Your task to perform on an android device: Go to Google maps Image 0: 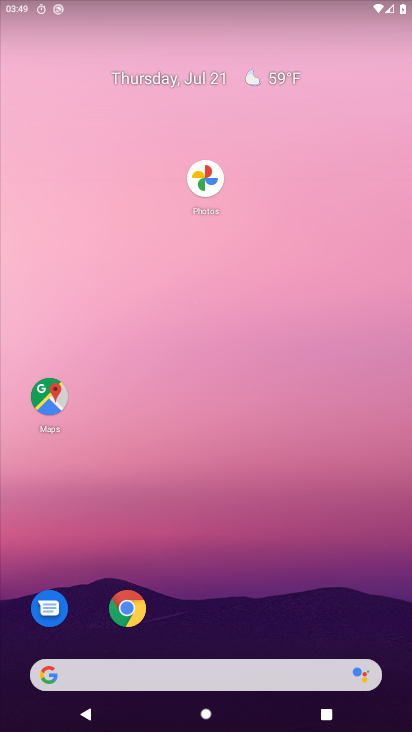
Step 0: click (47, 389)
Your task to perform on an android device: Go to Google maps Image 1: 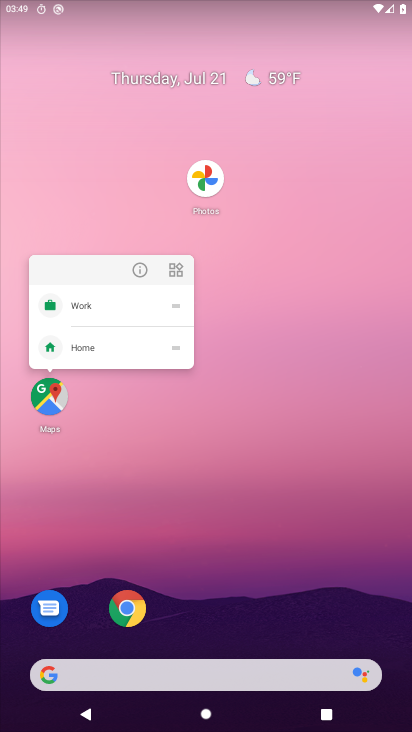
Step 1: click (47, 393)
Your task to perform on an android device: Go to Google maps Image 2: 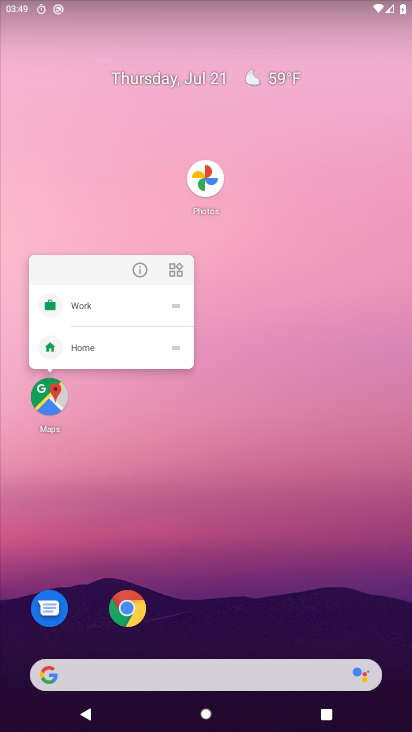
Step 2: click (47, 393)
Your task to perform on an android device: Go to Google maps Image 3: 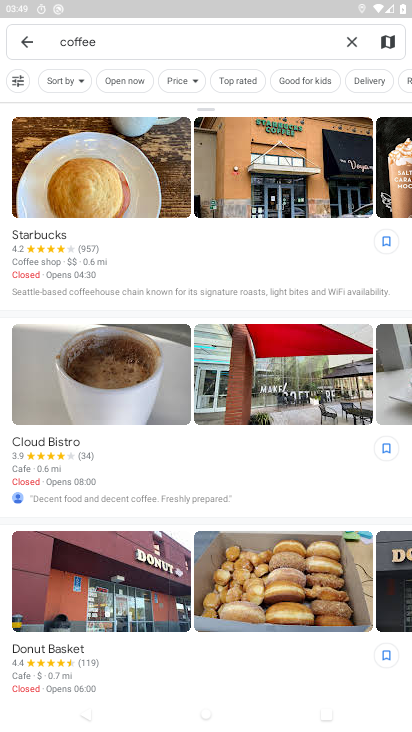
Step 3: click (25, 42)
Your task to perform on an android device: Go to Google maps Image 4: 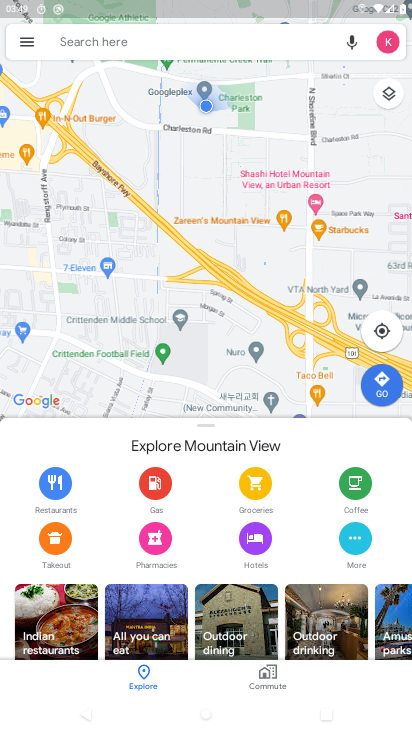
Step 4: task complete